Your task to perform on an android device: Open the calendar and show me this week's events? Image 0: 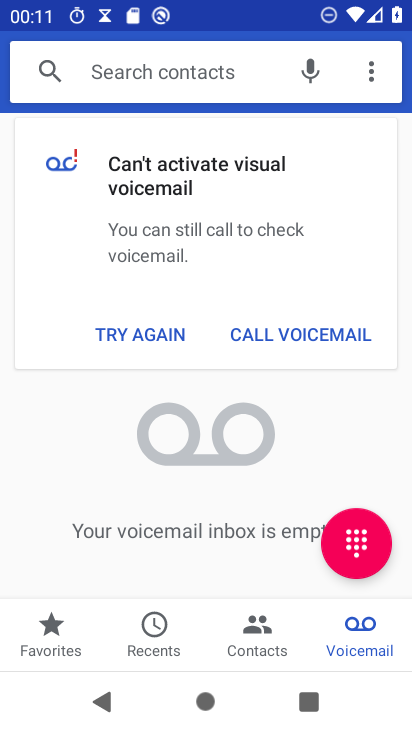
Step 0: press home button
Your task to perform on an android device: Open the calendar and show me this week's events? Image 1: 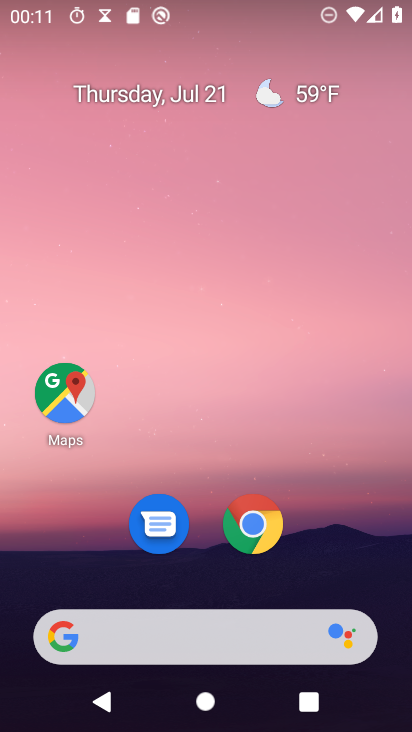
Step 1: drag from (179, 641) to (285, 141)
Your task to perform on an android device: Open the calendar and show me this week's events? Image 2: 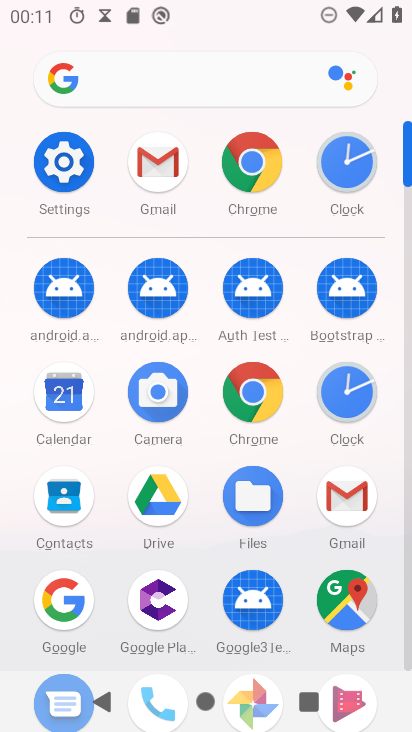
Step 2: click (71, 414)
Your task to perform on an android device: Open the calendar and show me this week's events? Image 3: 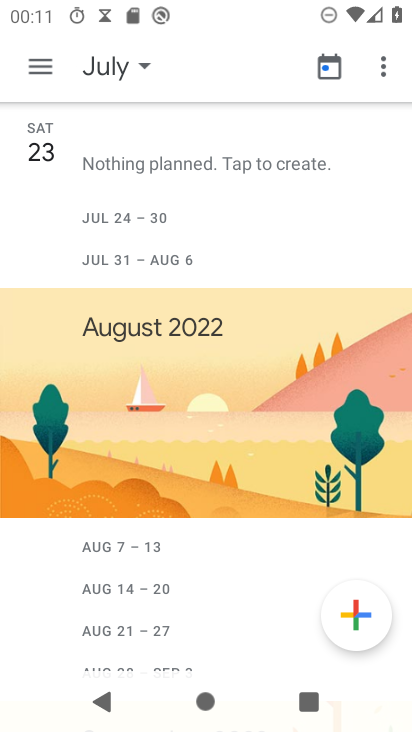
Step 3: click (102, 63)
Your task to perform on an android device: Open the calendar and show me this week's events? Image 4: 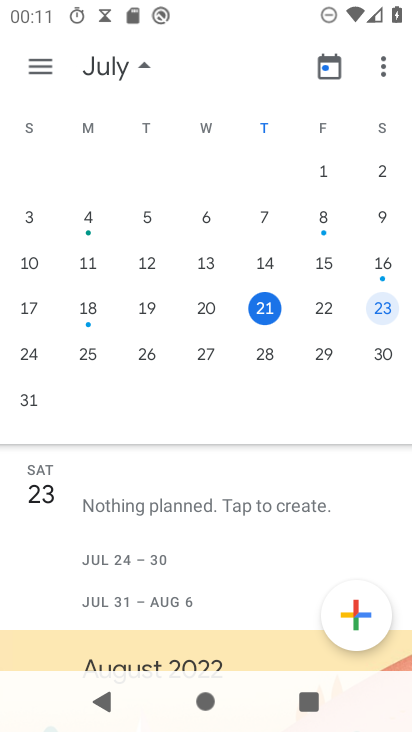
Step 4: click (268, 307)
Your task to perform on an android device: Open the calendar and show me this week's events? Image 5: 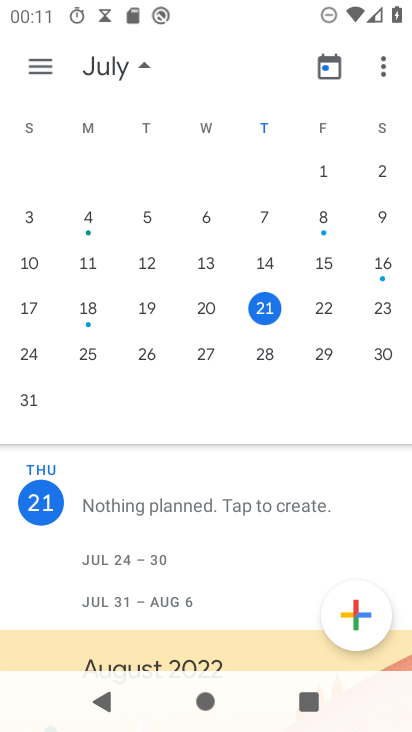
Step 5: click (37, 66)
Your task to perform on an android device: Open the calendar and show me this week's events? Image 6: 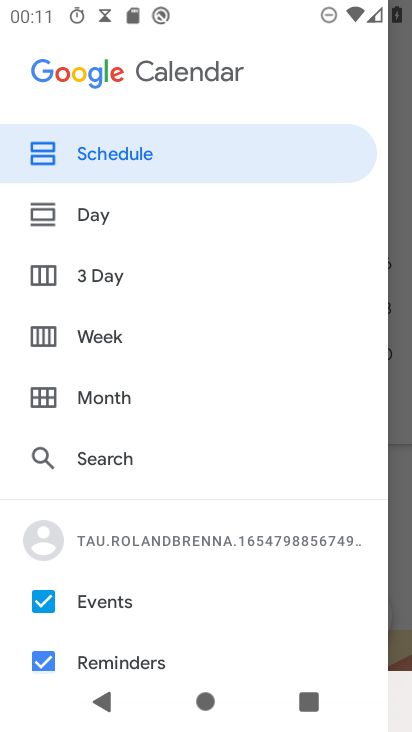
Step 6: click (106, 336)
Your task to perform on an android device: Open the calendar and show me this week's events? Image 7: 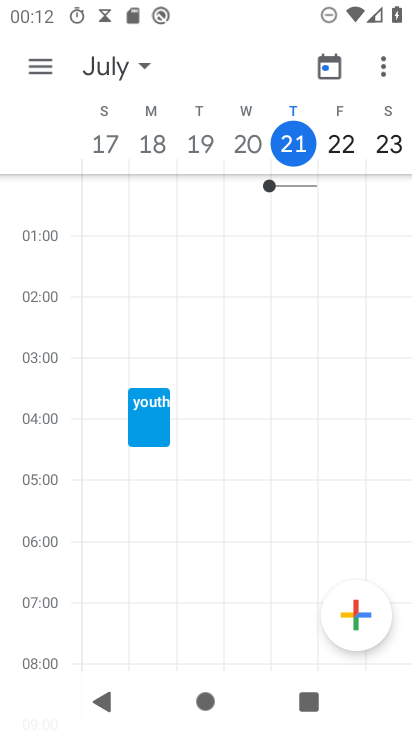
Step 7: click (43, 67)
Your task to perform on an android device: Open the calendar and show me this week's events? Image 8: 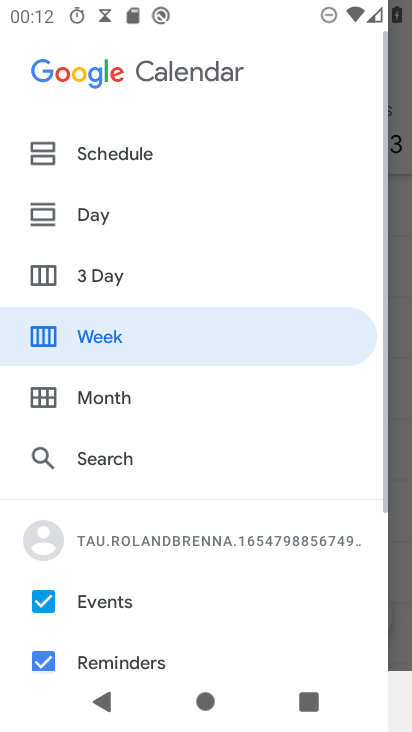
Step 8: click (97, 151)
Your task to perform on an android device: Open the calendar and show me this week's events? Image 9: 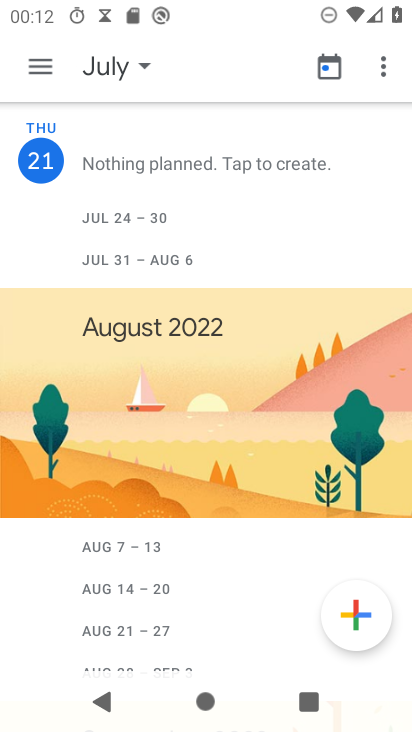
Step 9: task complete